Your task to perform on an android device: Clear the cart on amazon.com. Search for bose quietcomfort 35 on amazon.com, select the first entry, add it to the cart, then select checkout. Image 0: 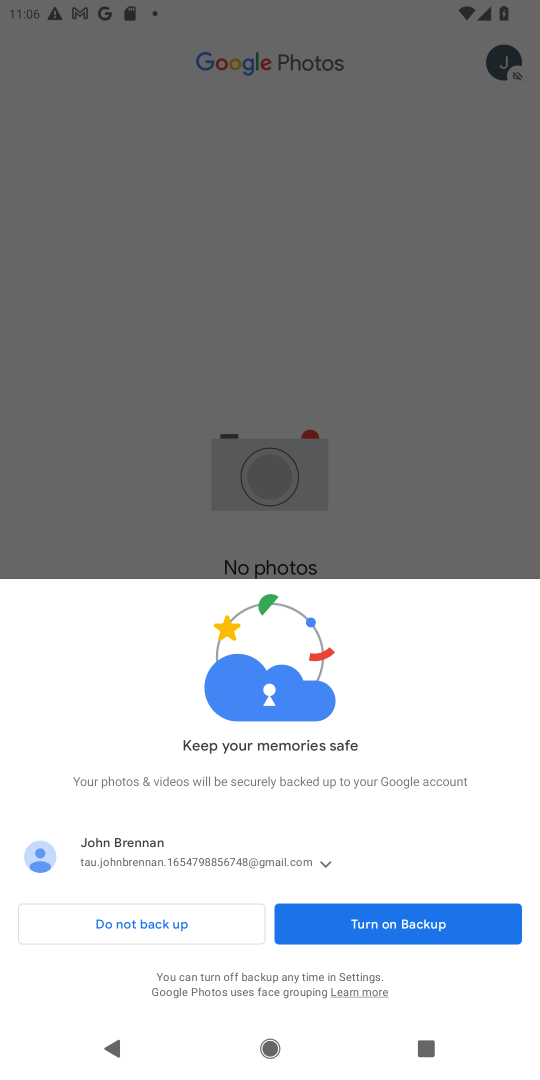
Step 0: press home button
Your task to perform on an android device: Clear the cart on amazon.com. Search for bose quietcomfort 35 on amazon.com, select the first entry, add it to the cart, then select checkout. Image 1: 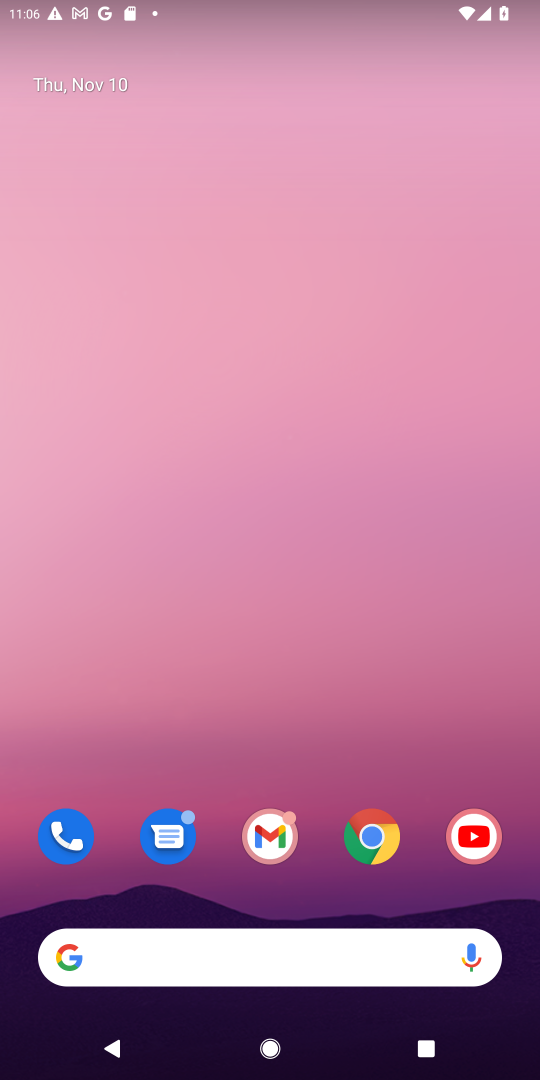
Step 1: drag from (292, 880) to (107, 128)
Your task to perform on an android device: Clear the cart on amazon.com. Search for bose quietcomfort 35 on amazon.com, select the first entry, add it to the cart, then select checkout. Image 2: 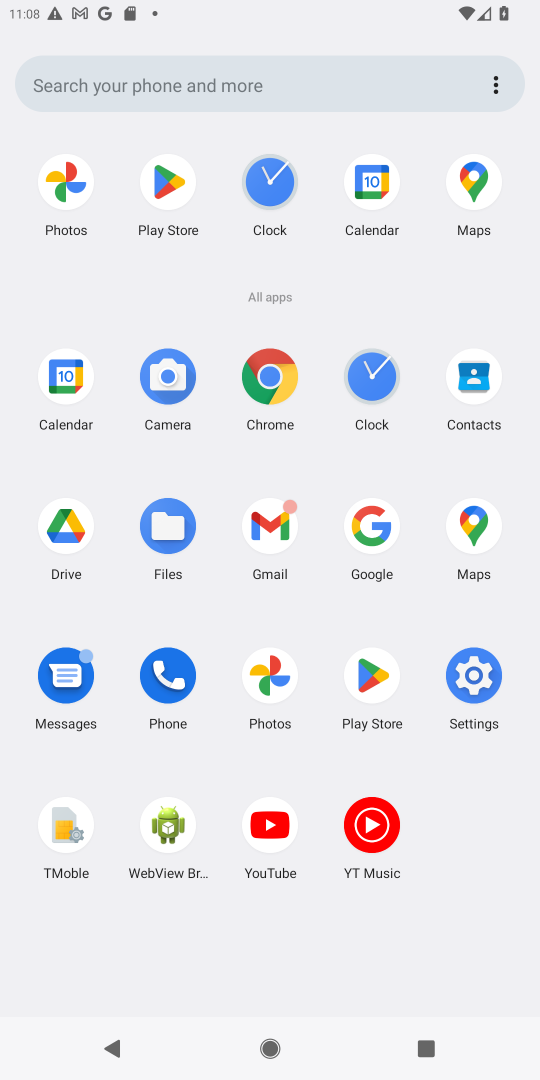
Step 2: click (371, 549)
Your task to perform on an android device: Clear the cart on amazon.com. Search for bose quietcomfort 35 on amazon.com, select the first entry, add it to the cart, then select checkout. Image 3: 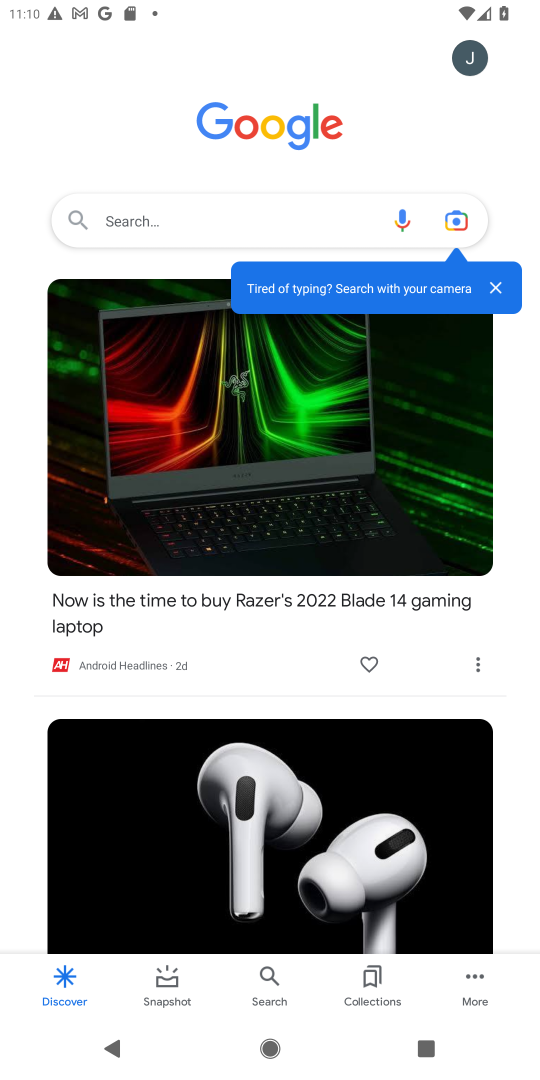
Step 3: press home button
Your task to perform on an android device: Clear the cart on amazon.com. Search for bose quietcomfort 35 on amazon.com, select the first entry, add it to the cart, then select checkout. Image 4: 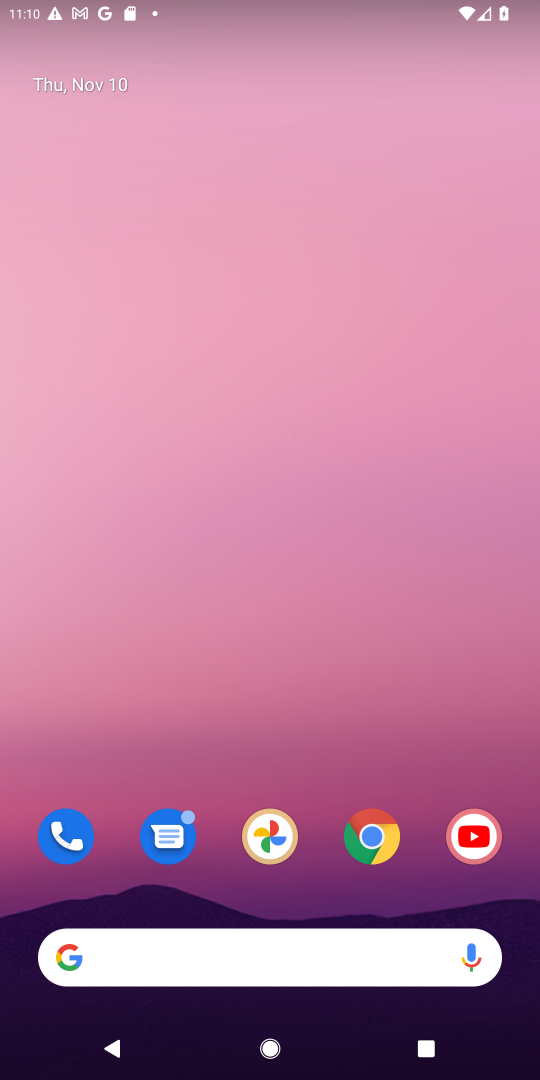
Step 4: drag from (241, 886) to (244, 275)
Your task to perform on an android device: Clear the cart on amazon.com. Search for bose quietcomfort 35 on amazon.com, select the first entry, add it to the cart, then select checkout. Image 5: 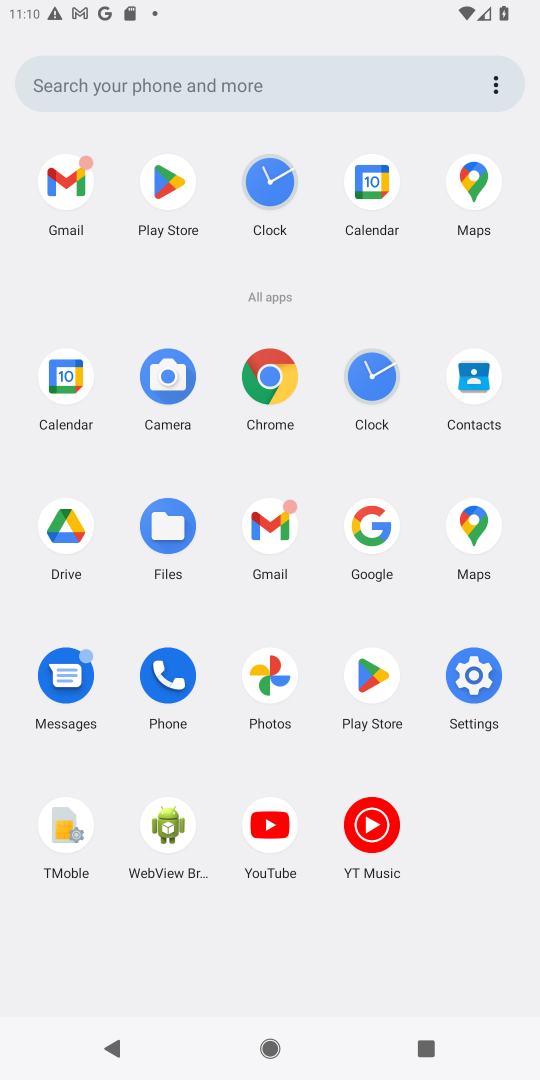
Step 5: click (358, 534)
Your task to perform on an android device: Clear the cart on amazon.com. Search for bose quietcomfort 35 on amazon.com, select the first entry, add it to the cart, then select checkout. Image 6: 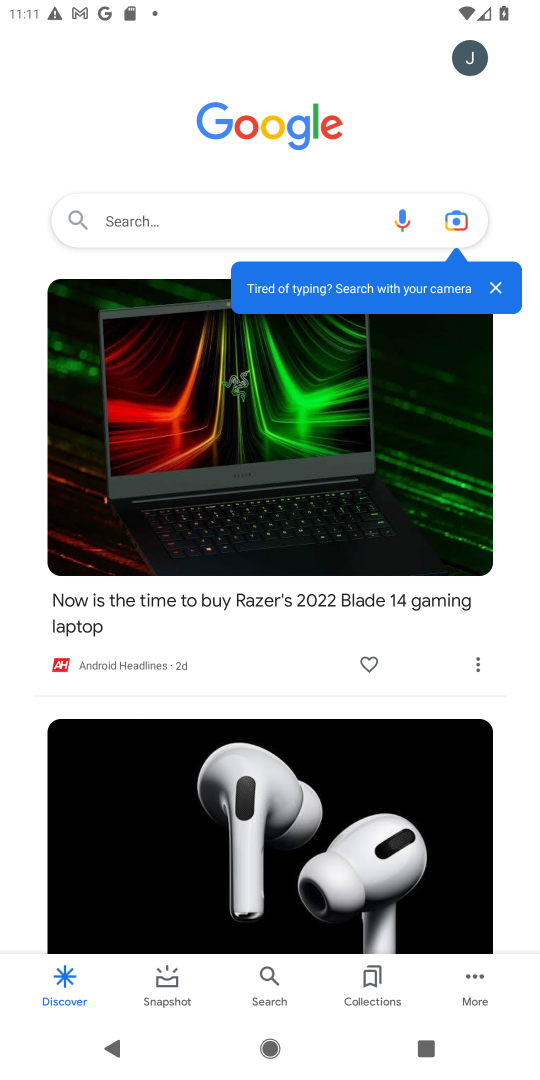
Step 6: click (168, 215)
Your task to perform on an android device: Clear the cart on amazon.com. Search for bose quietcomfort 35 on amazon.com, select the first entry, add it to the cart, then select checkout. Image 7: 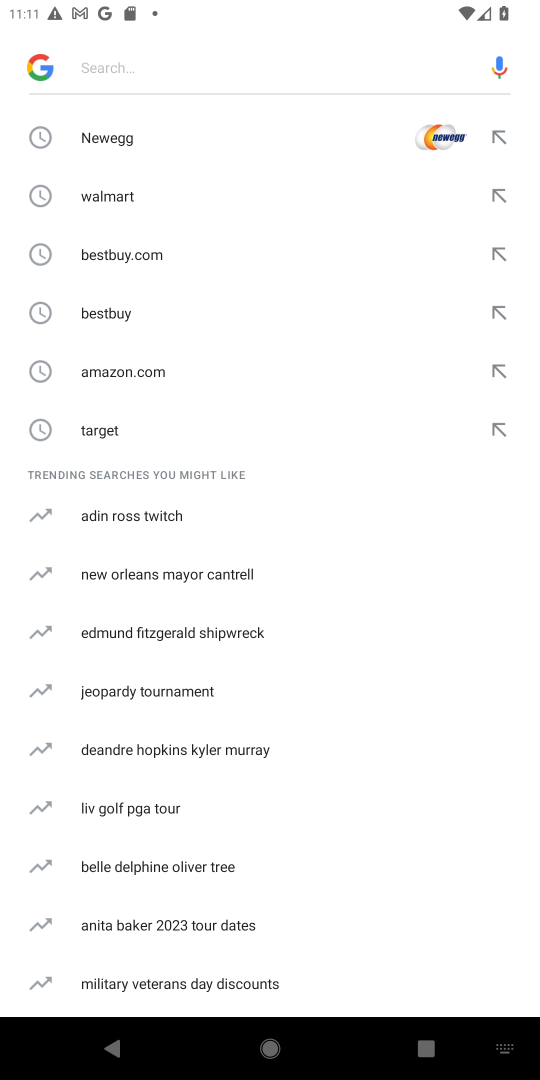
Step 7: type "amazon.com"
Your task to perform on an android device: Clear the cart on amazon.com. Search for bose quietcomfort 35 on amazon.com, select the first entry, add it to the cart, then select checkout. Image 8: 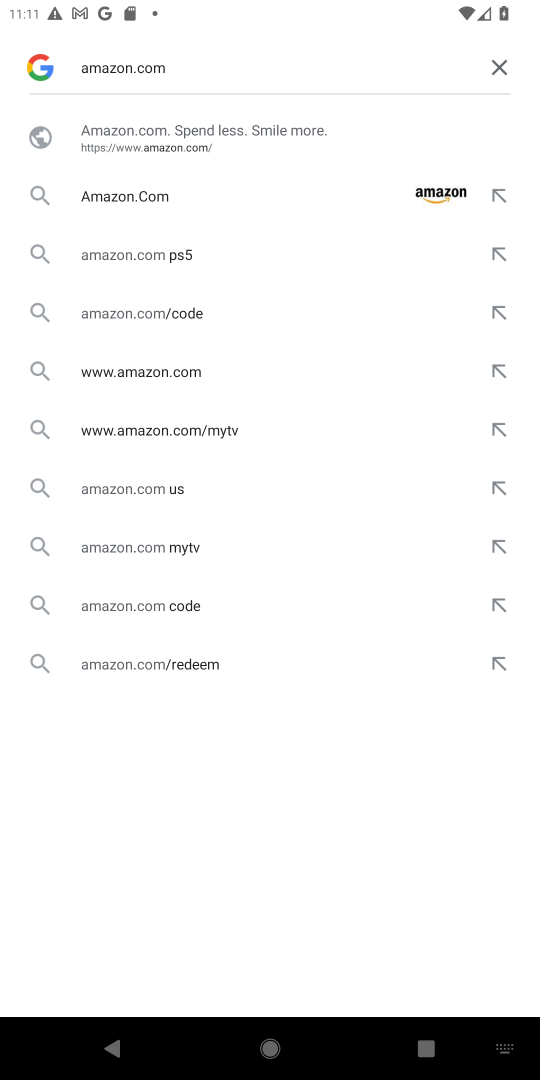
Step 8: click (136, 133)
Your task to perform on an android device: Clear the cart on amazon.com. Search for bose quietcomfort 35 on amazon.com, select the first entry, add it to the cart, then select checkout. Image 9: 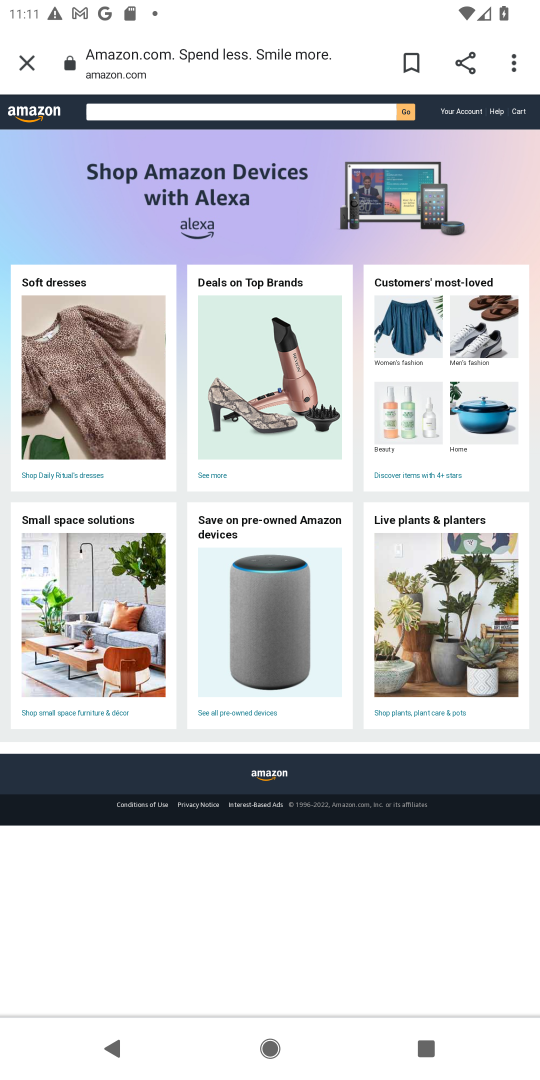
Step 9: drag from (153, 124) to (233, 111)
Your task to perform on an android device: Clear the cart on amazon.com. Search for bose quietcomfort 35 on amazon.com, select the first entry, add it to the cart, then select checkout. Image 10: 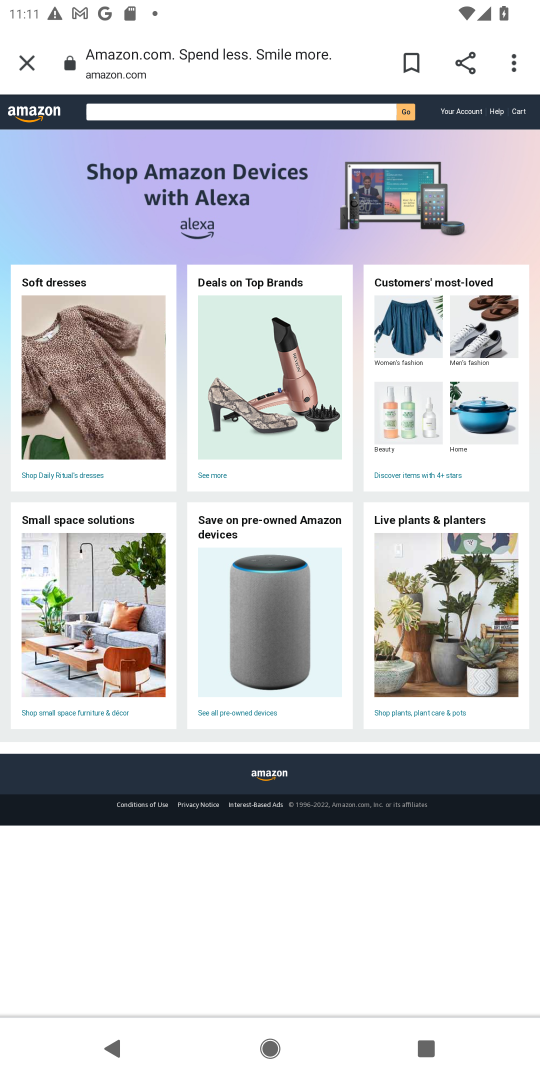
Step 10: click (233, 111)
Your task to perform on an android device: Clear the cart on amazon.com. Search for bose quietcomfort 35 on amazon.com, select the first entry, add it to the cart, then select checkout. Image 11: 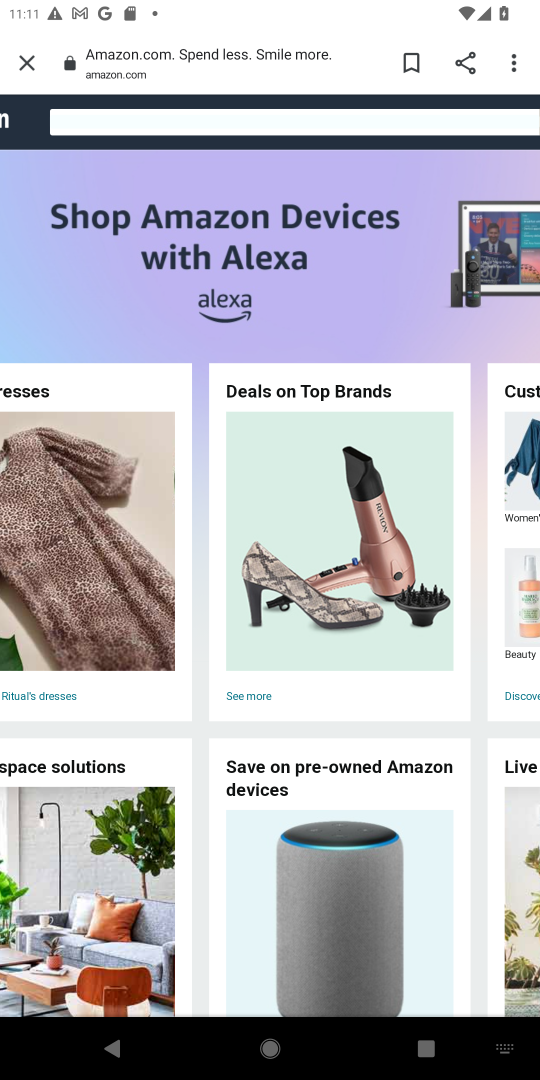
Step 11: click (242, 126)
Your task to perform on an android device: Clear the cart on amazon.com. Search for bose quietcomfort 35 on amazon.com, select the first entry, add it to the cart, then select checkout. Image 12: 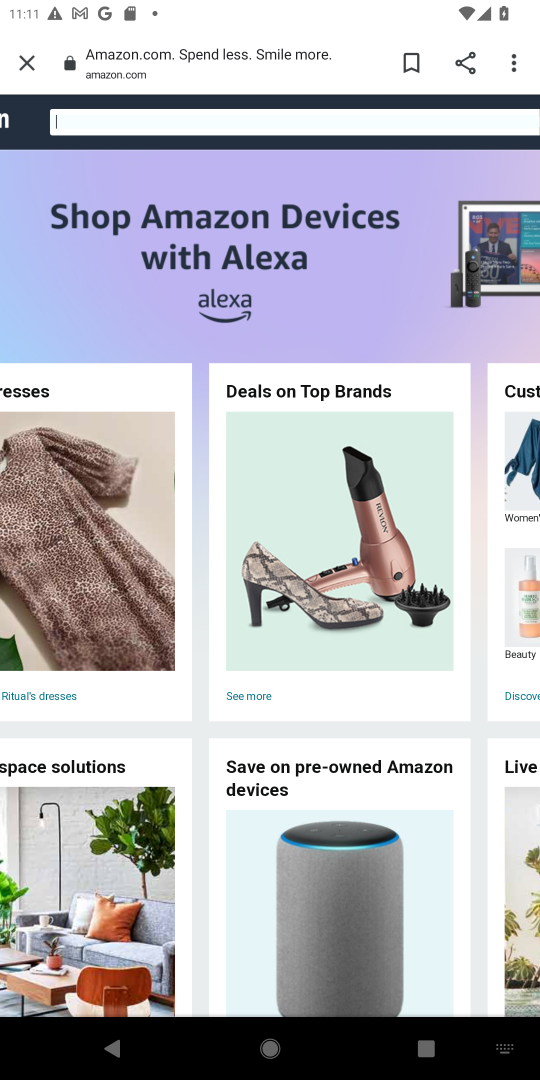
Step 12: type "quietcomfort 35"
Your task to perform on an android device: Clear the cart on amazon.com. Search for bose quietcomfort 35 on amazon.com, select the first entry, add it to the cart, then select checkout. Image 13: 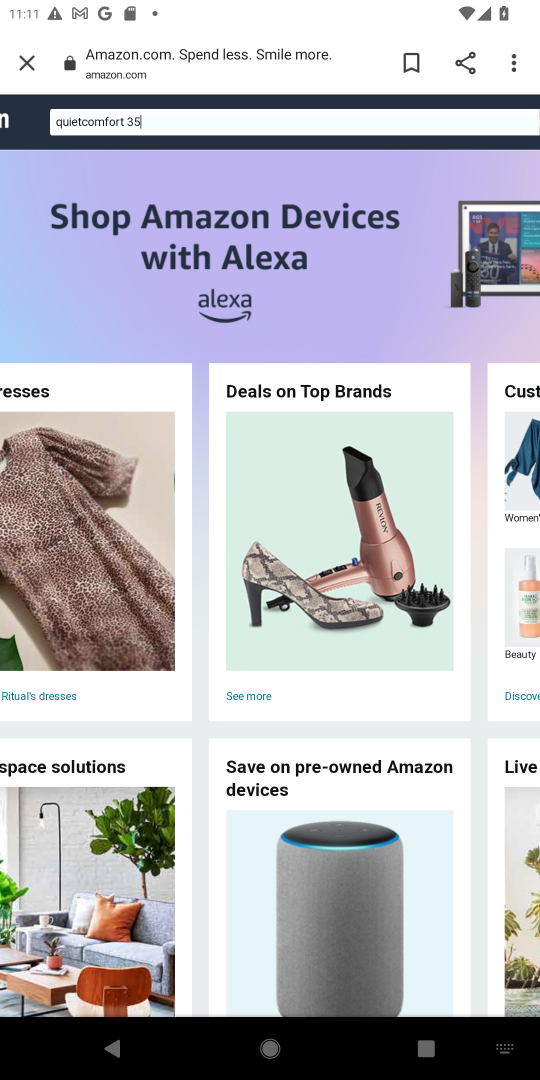
Step 13: click (30, 51)
Your task to perform on an android device: Clear the cart on amazon.com. Search for bose quietcomfort 35 on amazon.com, select the first entry, add it to the cart, then select checkout. Image 14: 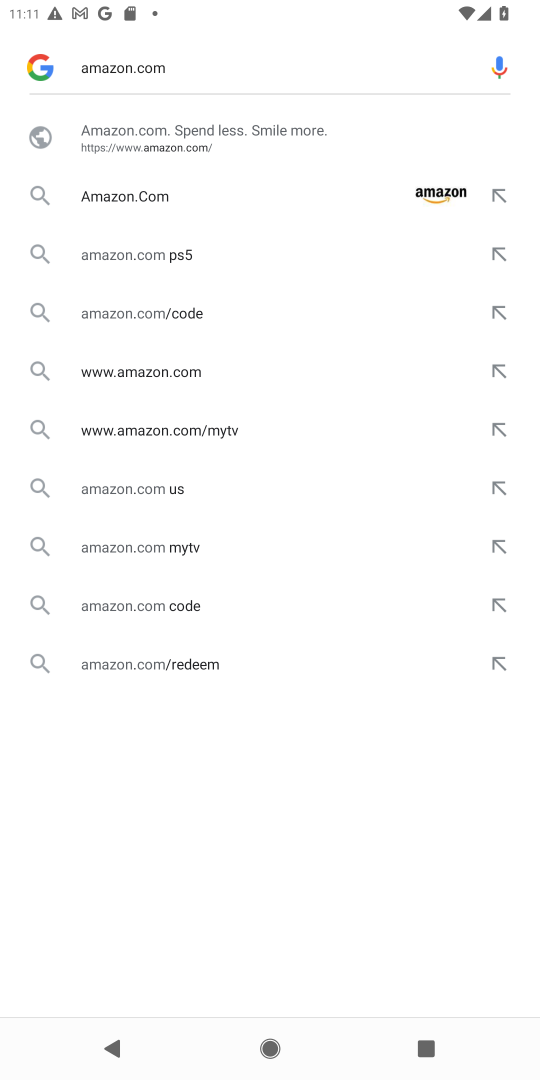
Step 14: click (192, 199)
Your task to perform on an android device: Clear the cart on amazon.com. Search for bose quietcomfort 35 on amazon.com, select the first entry, add it to the cart, then select checkout. Image 15: 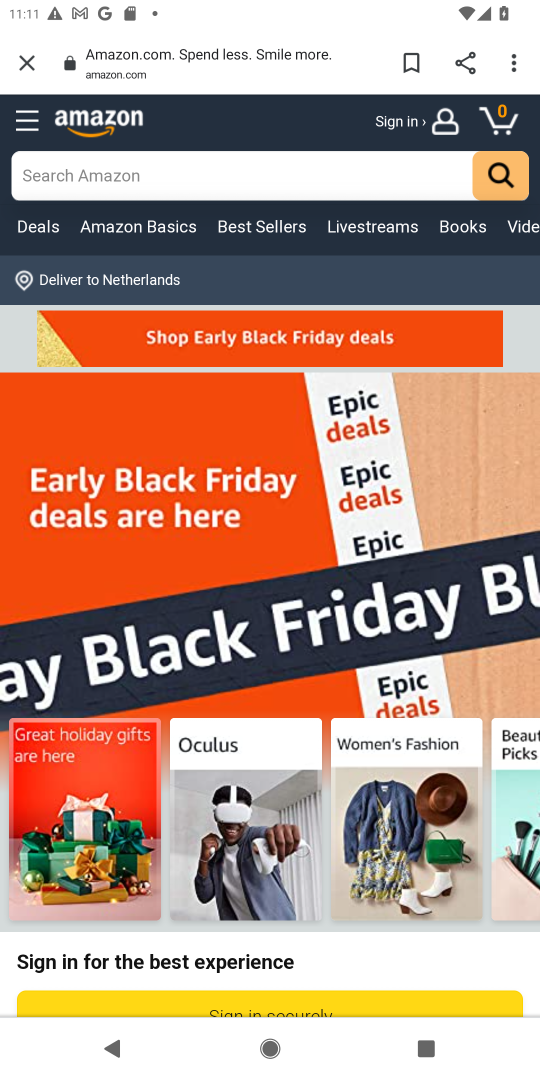
Step 15: click (230, 161)
Your task to perform on an android device: Clear the cart on amazon.com. Search for bose quietcomfort 35 on amazon.com, select the first entry, add it to the cart, then select checkout. Image 16: 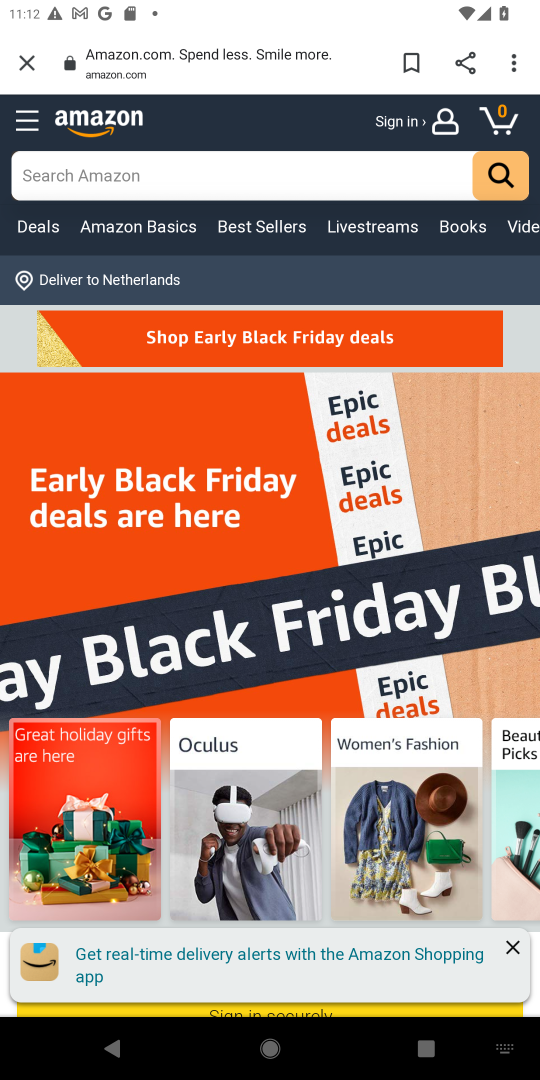
Step 16: type "quietcomfort 35"
Your task to perform on an android device: Clear the cart on amazon.com. Search for bose quietcomfort 35 on amazon.com, select the first entry, add it to the cart, then select checkout. Image 17: 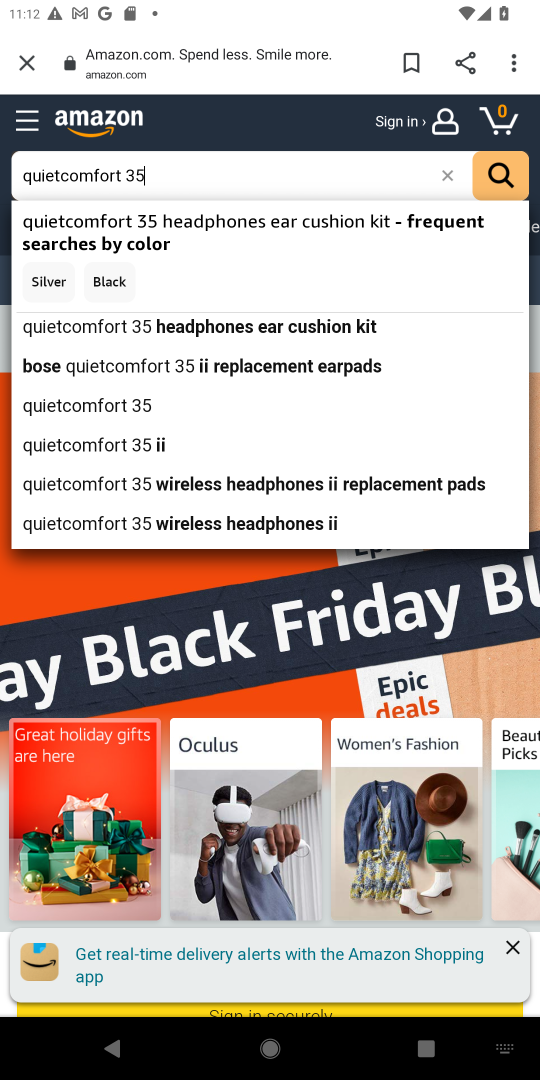
Step 17: click (129, 405)
Your task to perform on an android device: Clear the cart on amazon.com. Search for bose quietcomfort 35 on amazon.com, select the first entry, add it to the cart, then select checkout. Image 18: 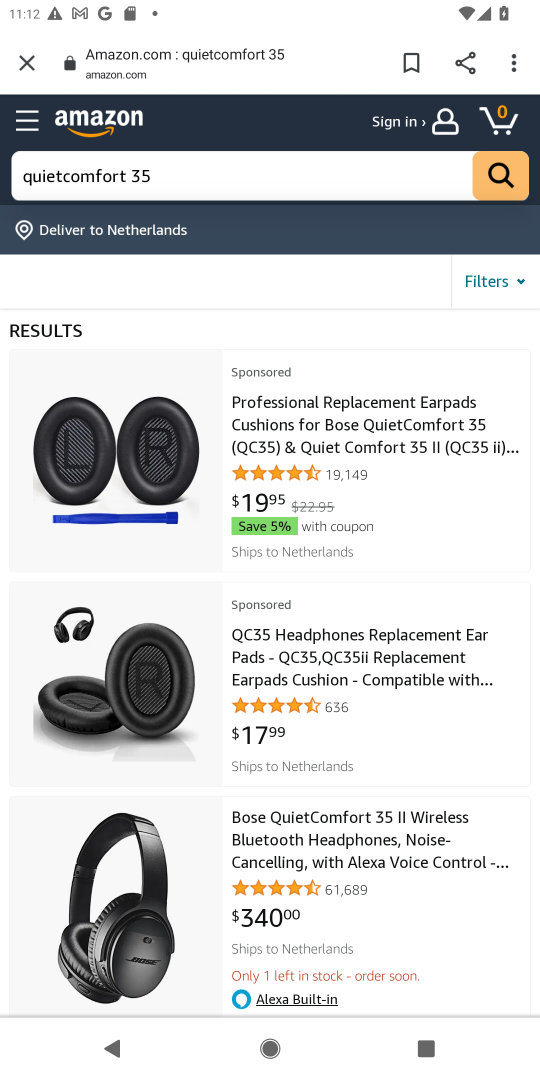
Step 18: click (268, 434)
Your task to perform on an android device: Clear the cart on amazon.com. Search for bose quietcomfort 35 on amazon.com, select the first entry, add it to the cart, then select checkout. Image 19: 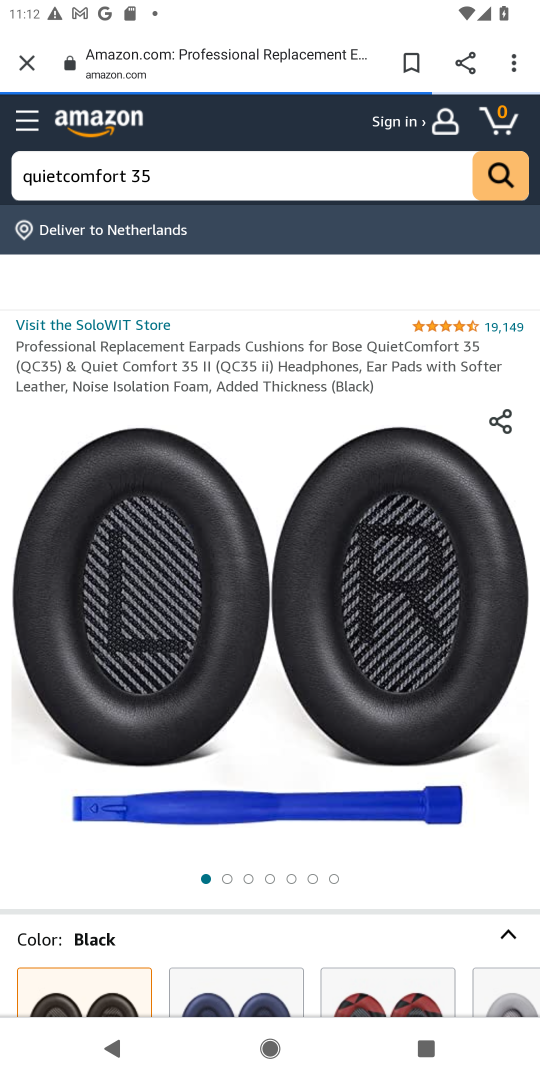
Step 19: drag from (367, 831) to (362, 630)
Your task to perform on an android device: Clear the cart on amazon.com. Search for bose quietcomfort 35 on amazon.com, select the first entry, add it to the cart, then select checkout. Image 20: 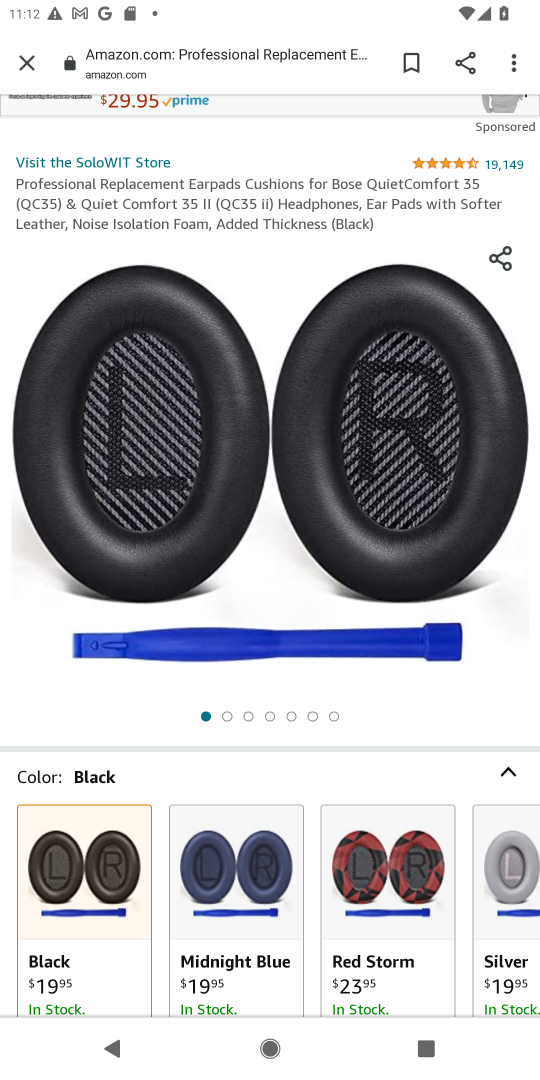
Step 20: drag from (307, 776) to (266, 609)
Your task to perform on an android device: Clear the cart on amazon.com. Search for bose quietcomfort 35 on amazon.com, select the first entry, add it to the cart, then select checkout. Image 21: 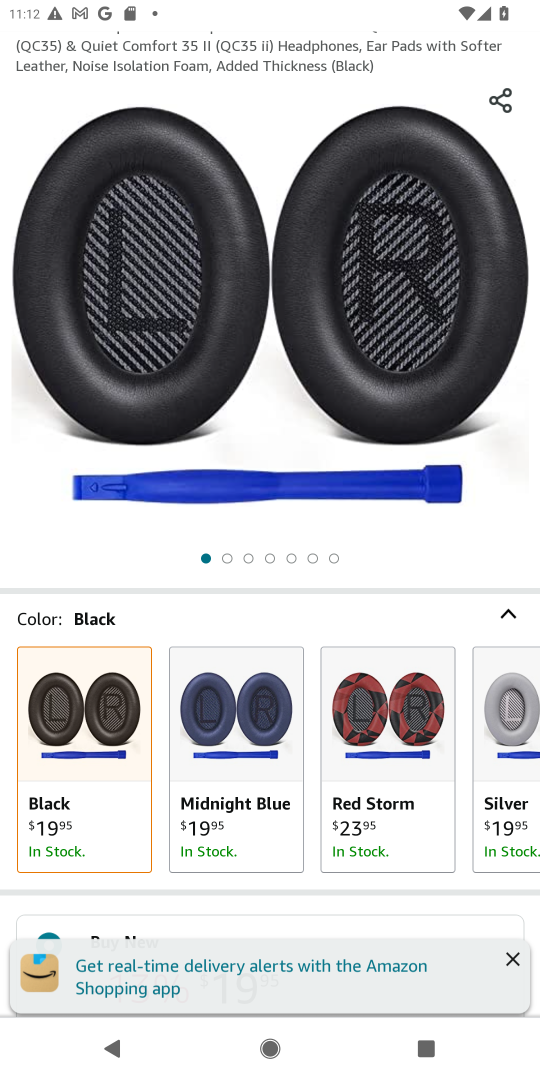
Step 21: drag from (304, 929) to (259, 627)
Your task to perform on an android device: Clear the cart on amazon.com. Search for bose quietcomfort 35 on amazon.com, select the first entry, add it to the cart, then select checkout. Image 22: 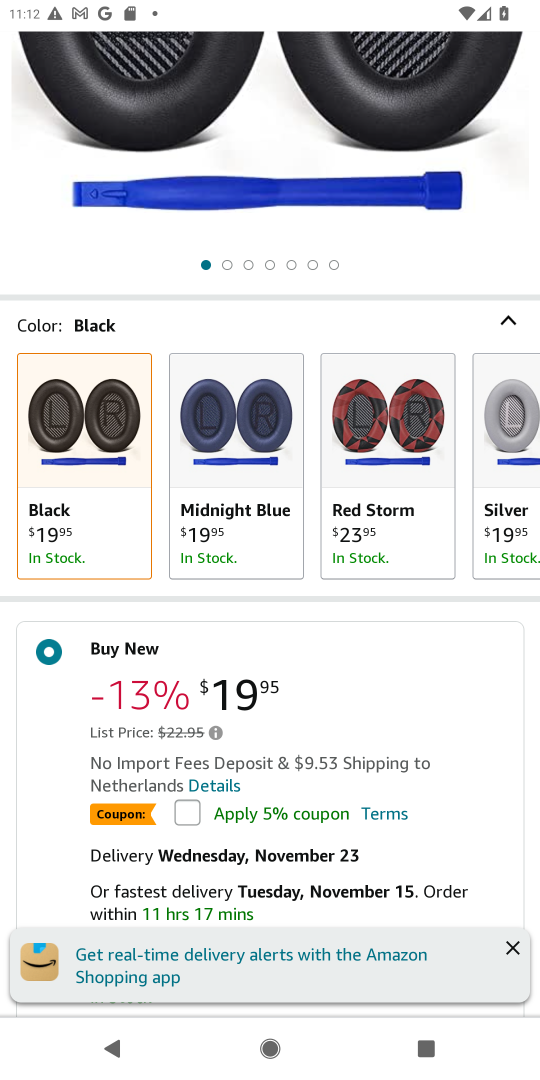
Step 22: drag from (262, 736) to (249, 415)
Your task to perform on an android device: Clear the cart on amazon.com. Search for bose quietcomfort 35 on amazon.com, select the first entry, add it to the cart, then select checkout. Image 23: 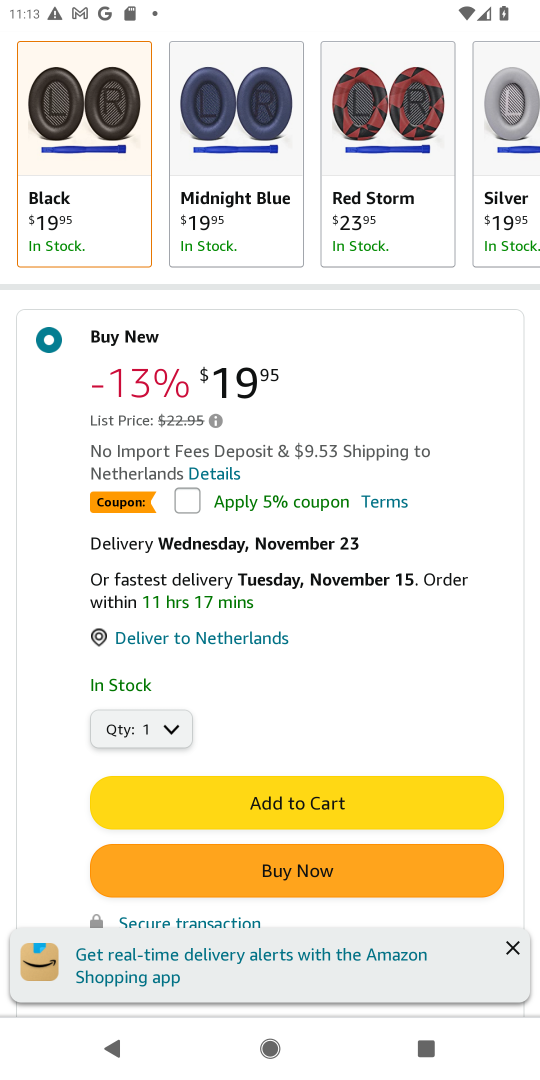
Step 23: click (300, 795)
Your task to perform on an android device: Clear the cart on amazon.com. Search for bose quietcomfort 35 on amazon.com, select the first entry, add it to the cart, then select checkout. Image 24: 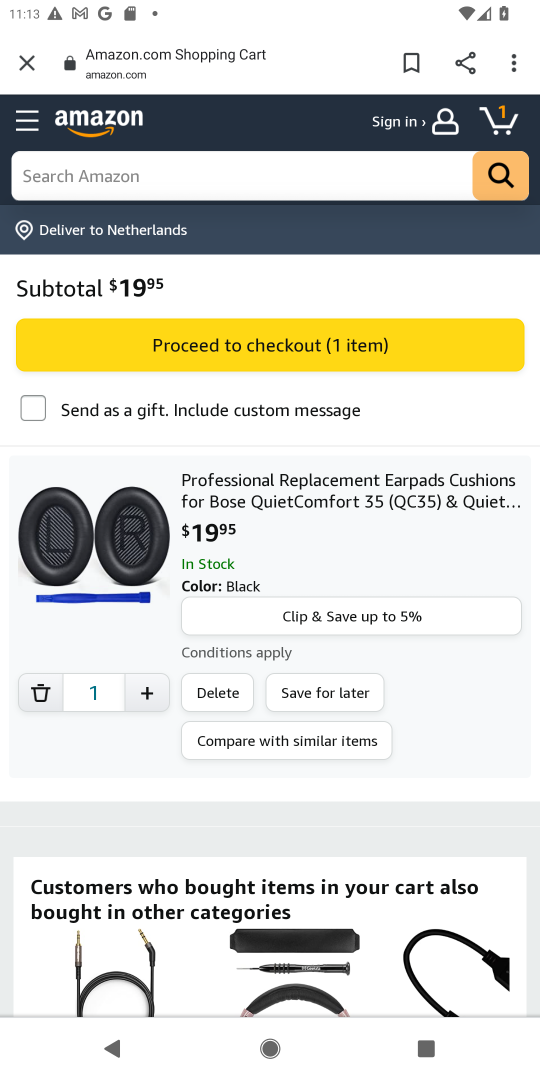
Step 24: click (286, 335)
Your task to perform on an android device: Clear the cart on amazon.com. Search for bose quietcomfort 35 on amazon.com, select the first entry, add it to the cart, then select checkout. Image 25: 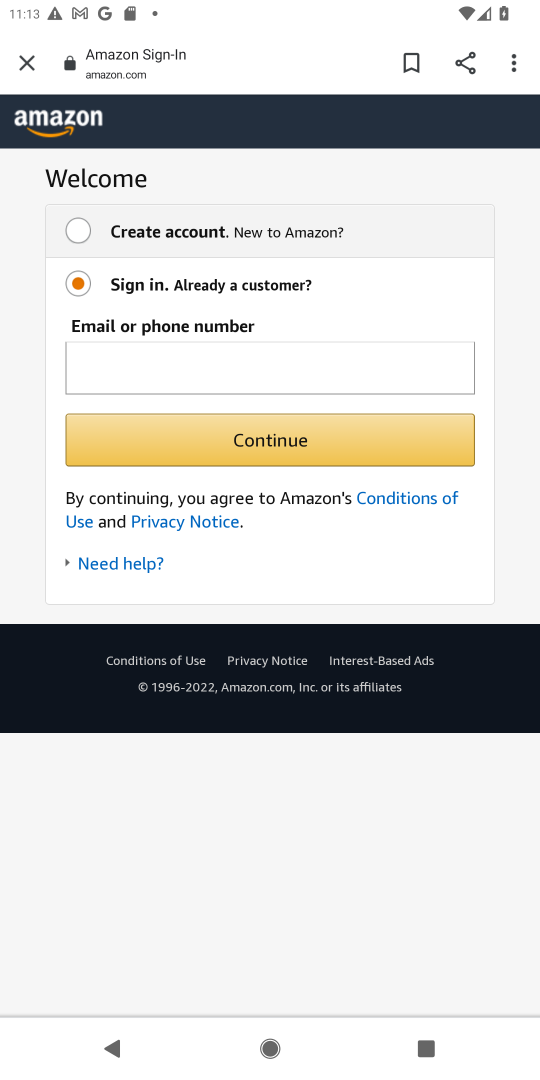
Step 25: task complete